Your task to perform on an android device: delete the emails in spam in the gmail app Image 0: 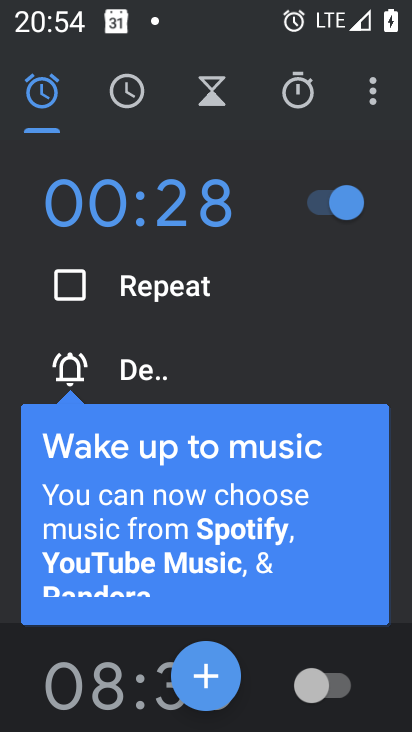
Step 0: press home button
Your task to perform on an android device: delete the emails in spam in the gmail app Image 1: 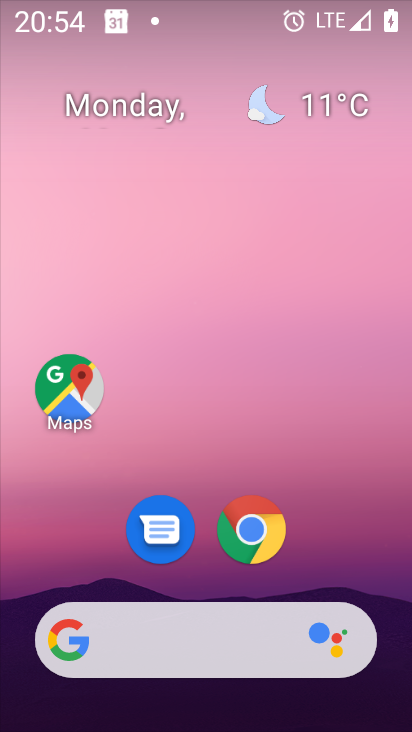
Step 1: drag from (187, 610) to (129, 20)
Your task to perform on an android device: delete the emails in spam in the gmail app Image 2: 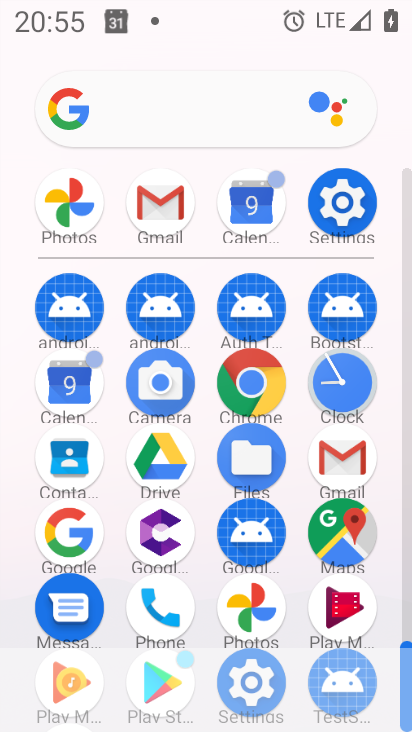
Step 2: click (321, 464)
Your task to perform on an android device: delete the emails in spam in the gmail app Image 3: 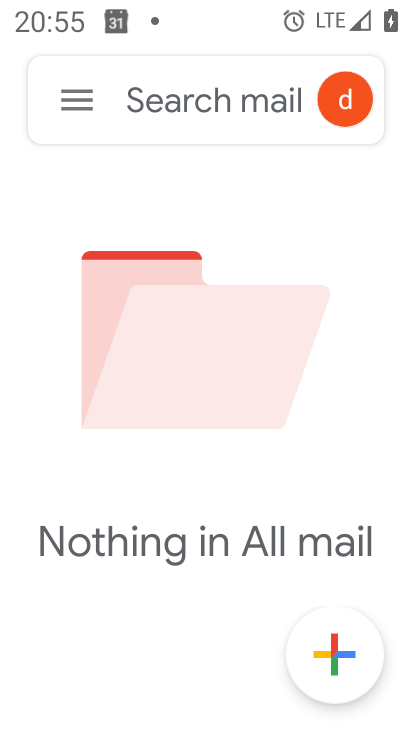
Step 3: click (76, 107)
Your task to perform on an android device: delete the emails in spam in the gmail app Image 4: 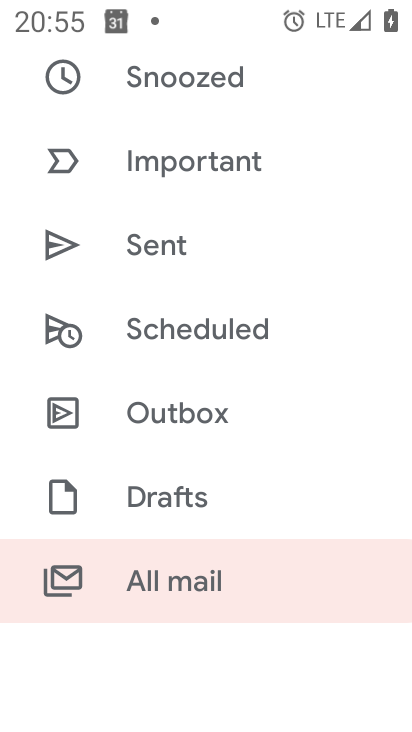
Step 4: drag from (217, 569) to (165, 141)
Your task to perform on an android device: delete the emails in spam in the gmail app Image 5: 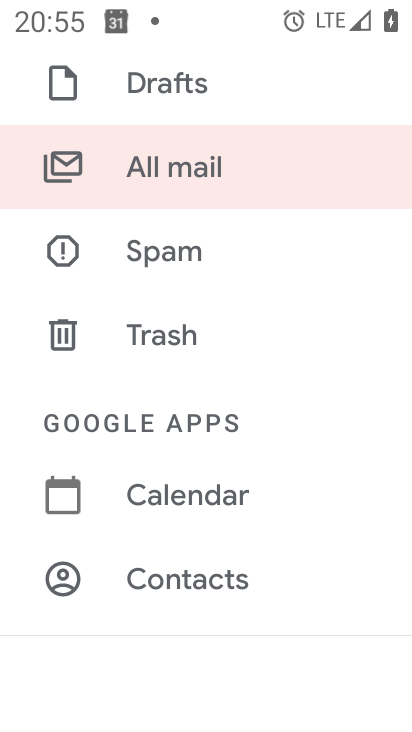
Step 5: click (158, 265)
Your task to perform on an android device: delete the emails in spam in the gmail app Image 6: 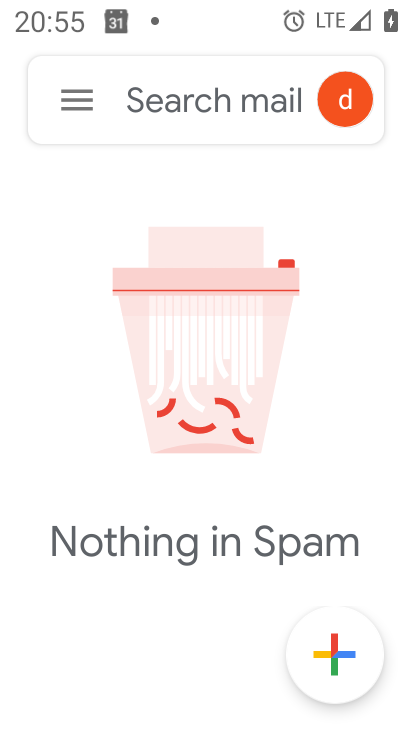
Step 6: task complete